Your task to perform on an android device: Go to notification settings Image 0: 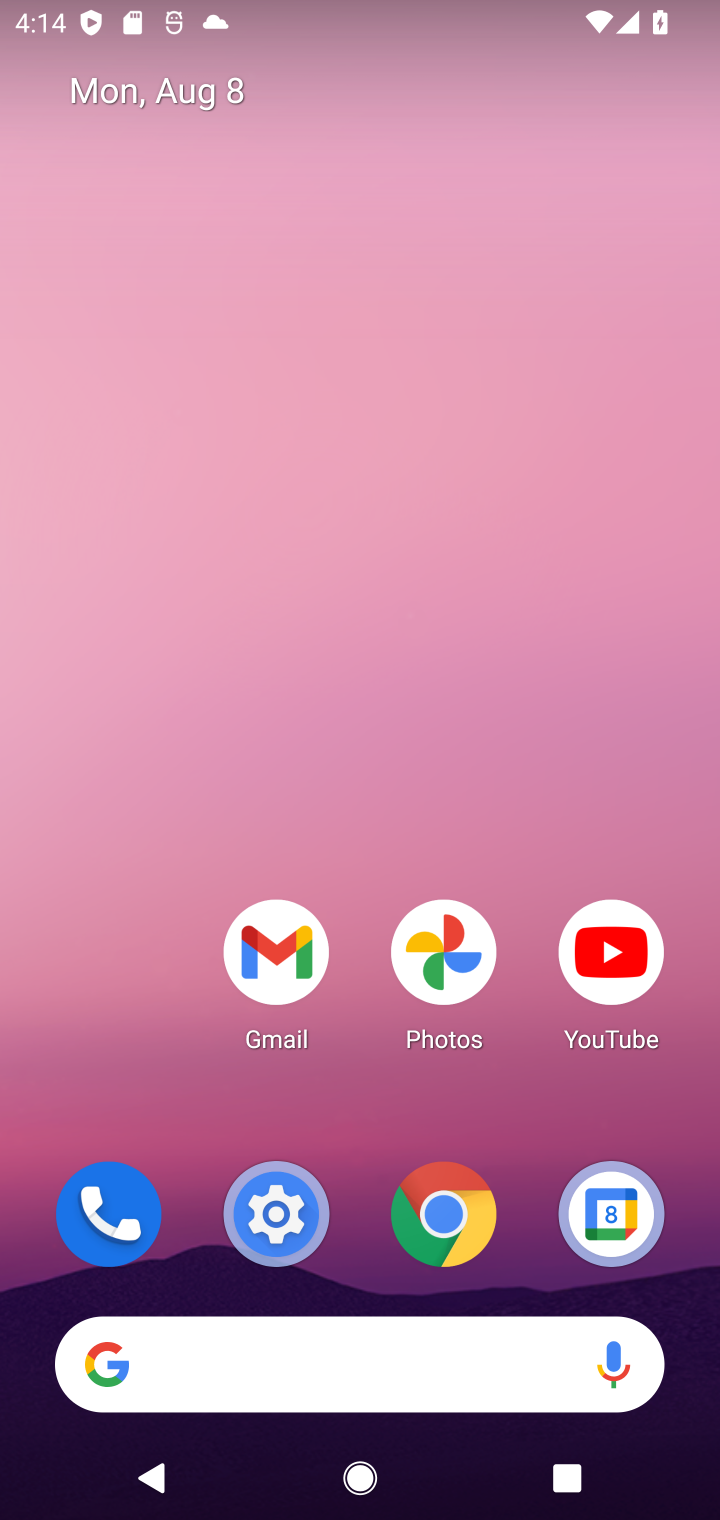
Step 0: drag from (366, 1271) to (328, 287)
Your task to perform on an android device: Go to notification settings Image 1: 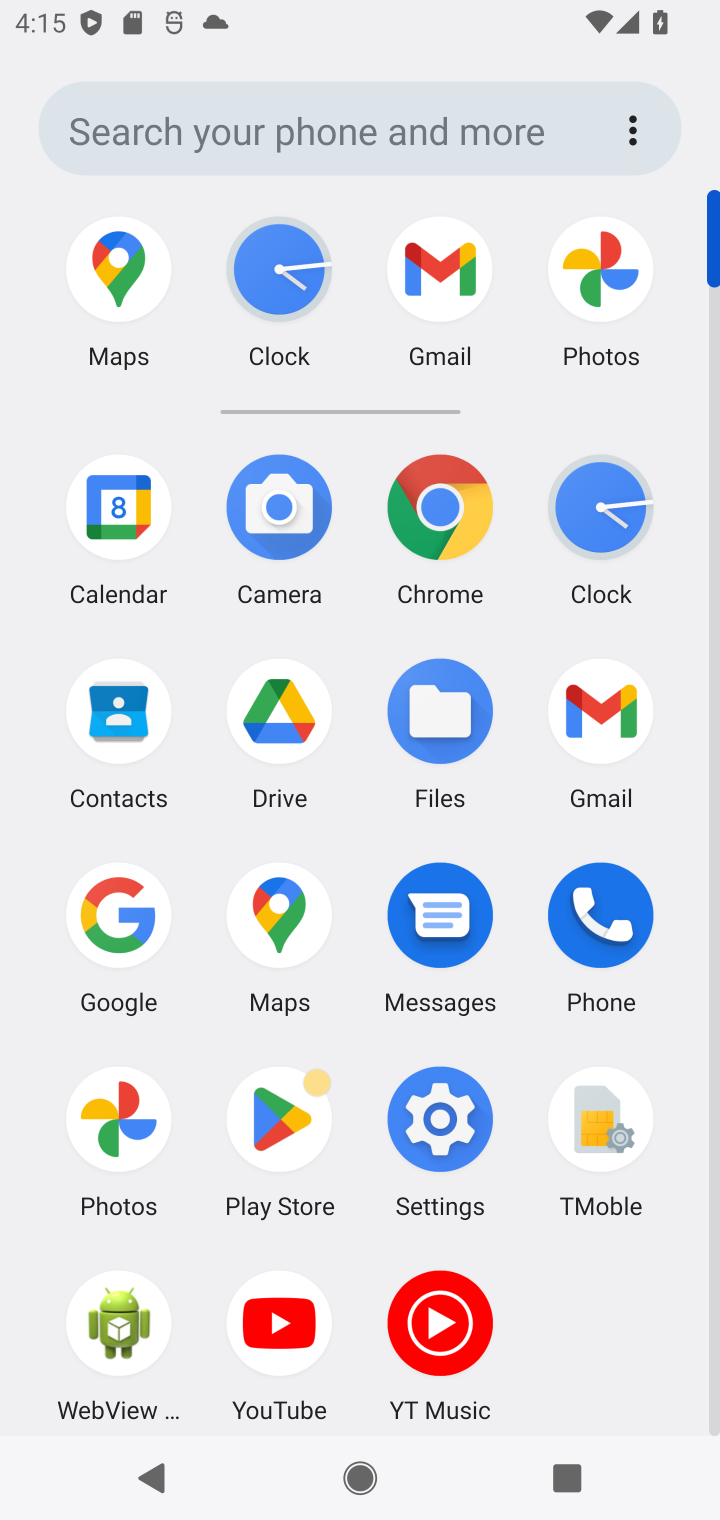
Step 1: click (438, 1105)
Your task to perform on an android device: Go to notification settings Image 2: 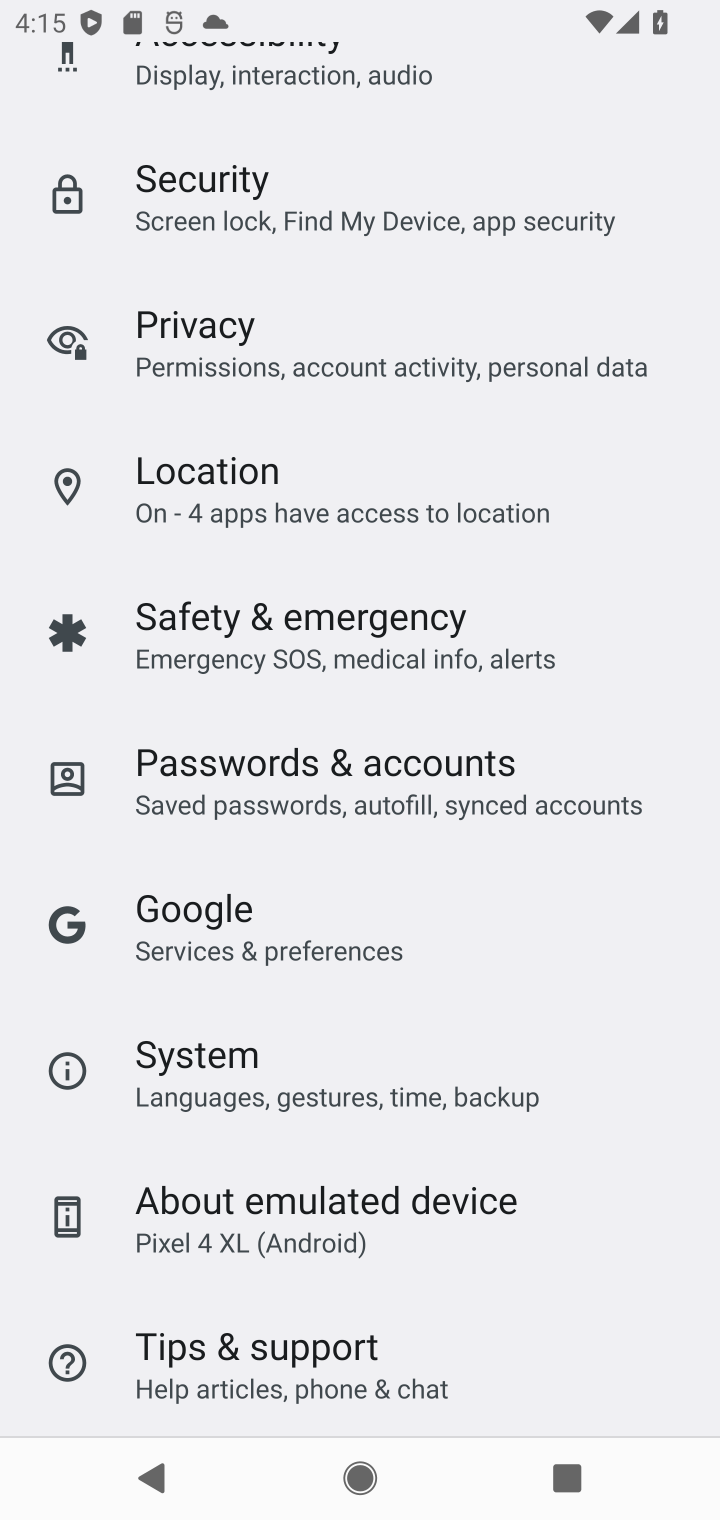
Step 2: drag from (246, 224) to (244, 1052)
Your task to perform on an android device: Go to notification settings Image 3: 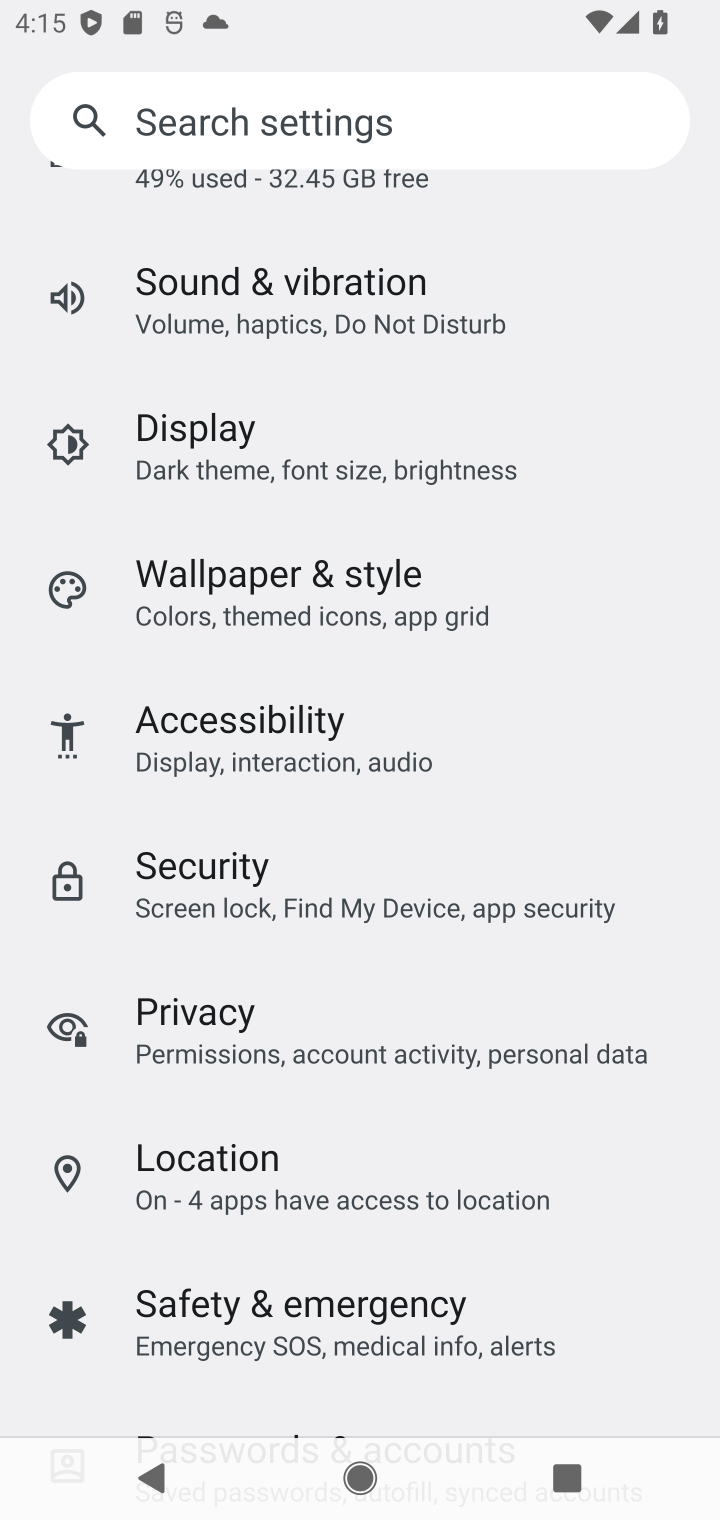
Step 3: drag from (212, 301) to (230, 1084)
Your task to perform on an android device: Go to notification settings Image 4: 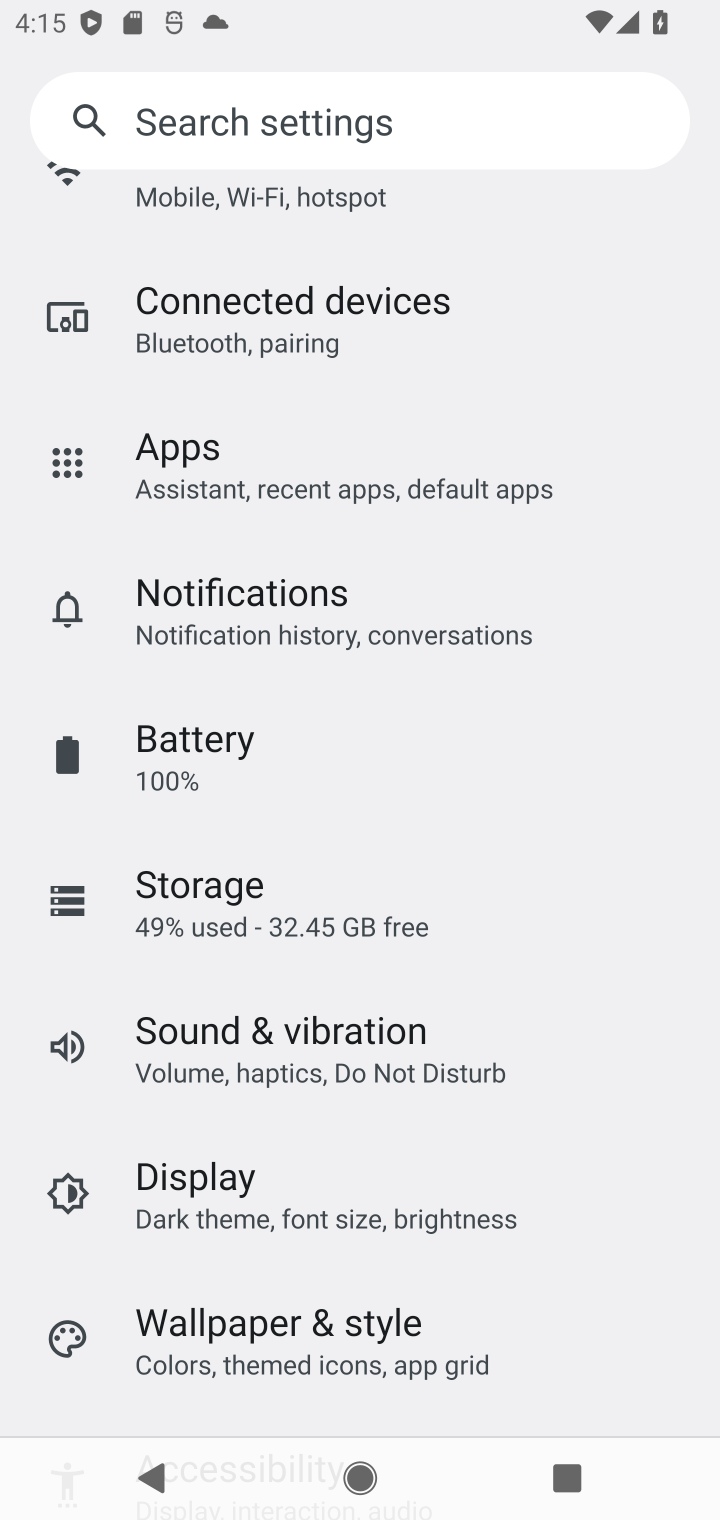
Step 4: click (235, 601)
Your task to perform on an android device: Go to notification settings Image 5: 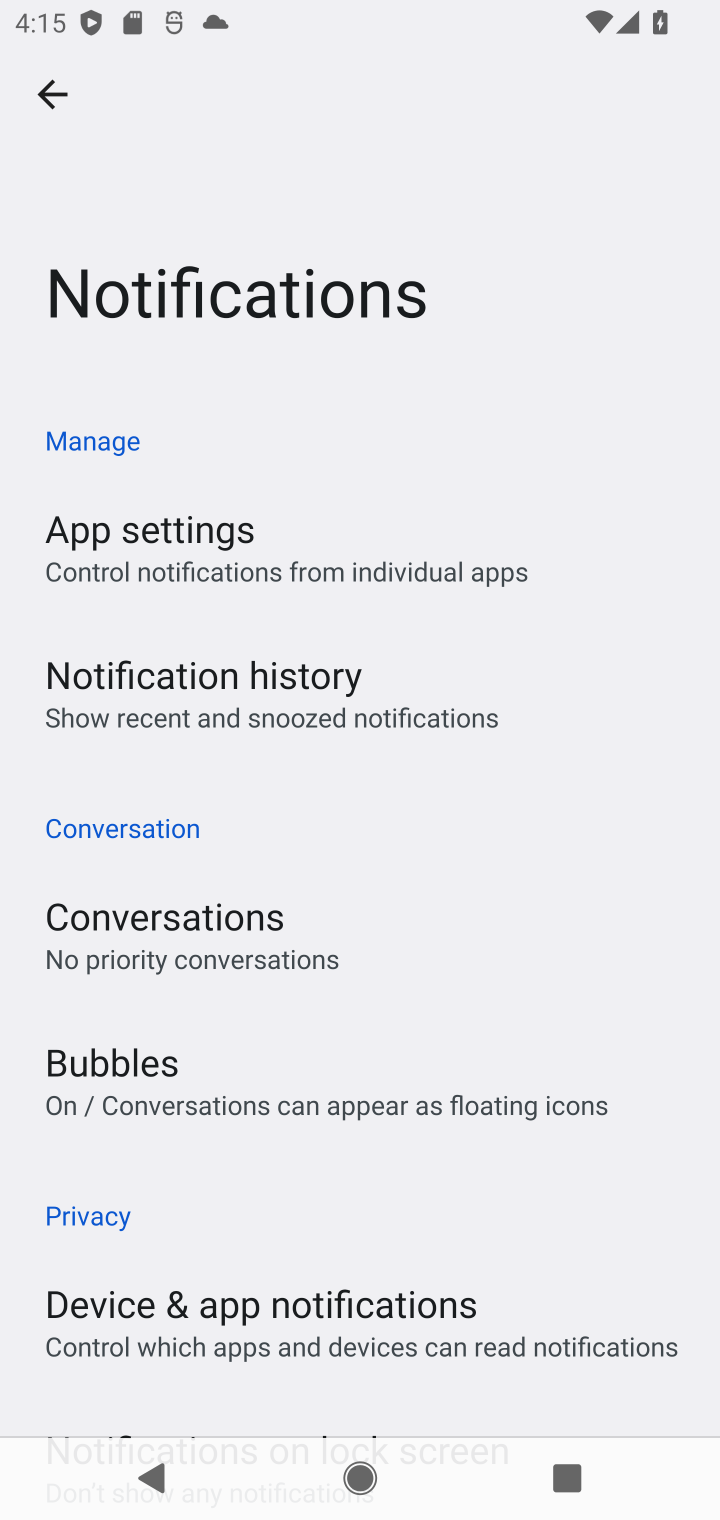
Step 5: task complete